Your task to perform on an android device: Find coffee shops on Maps Image 0: 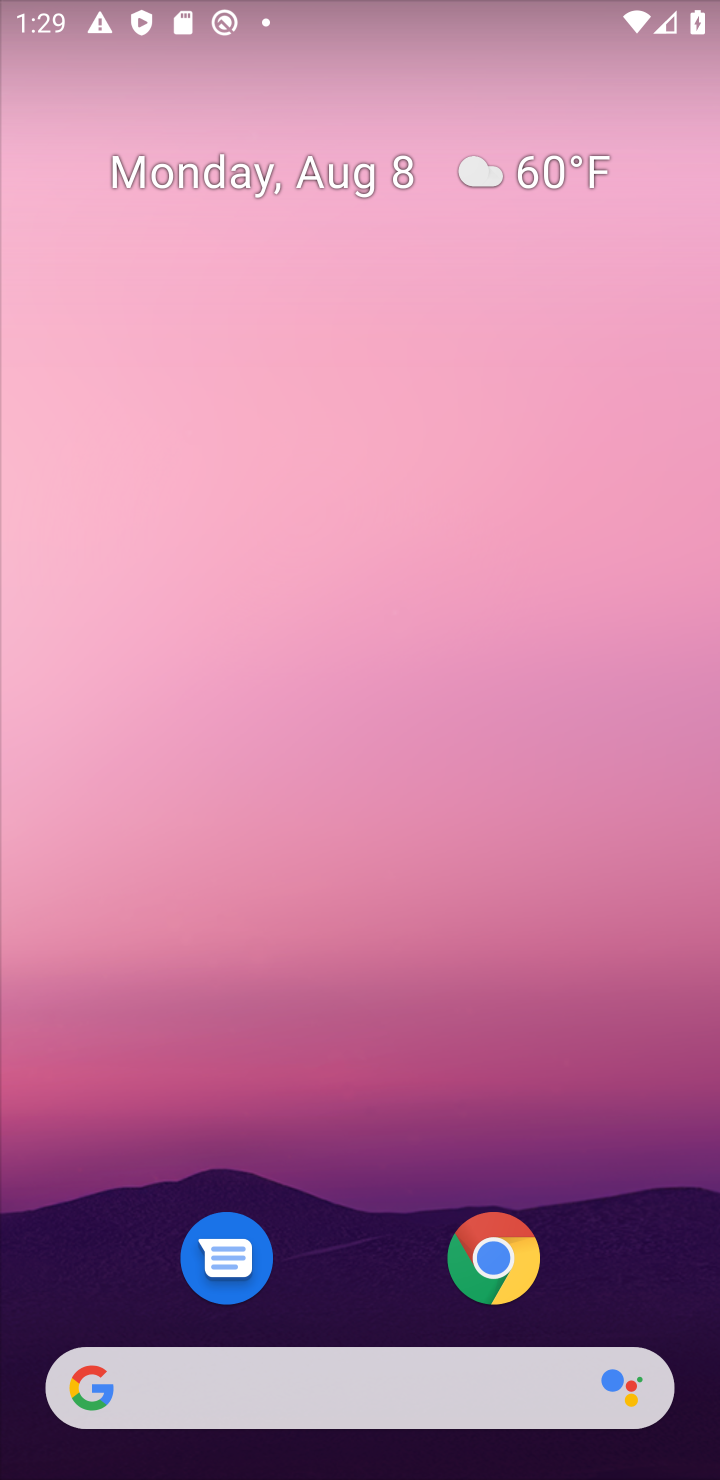
Step 0: drag from (487, 1252) to (340, 63)
Your task to perform on an android device: Find coffee shops on Maps Image 1: 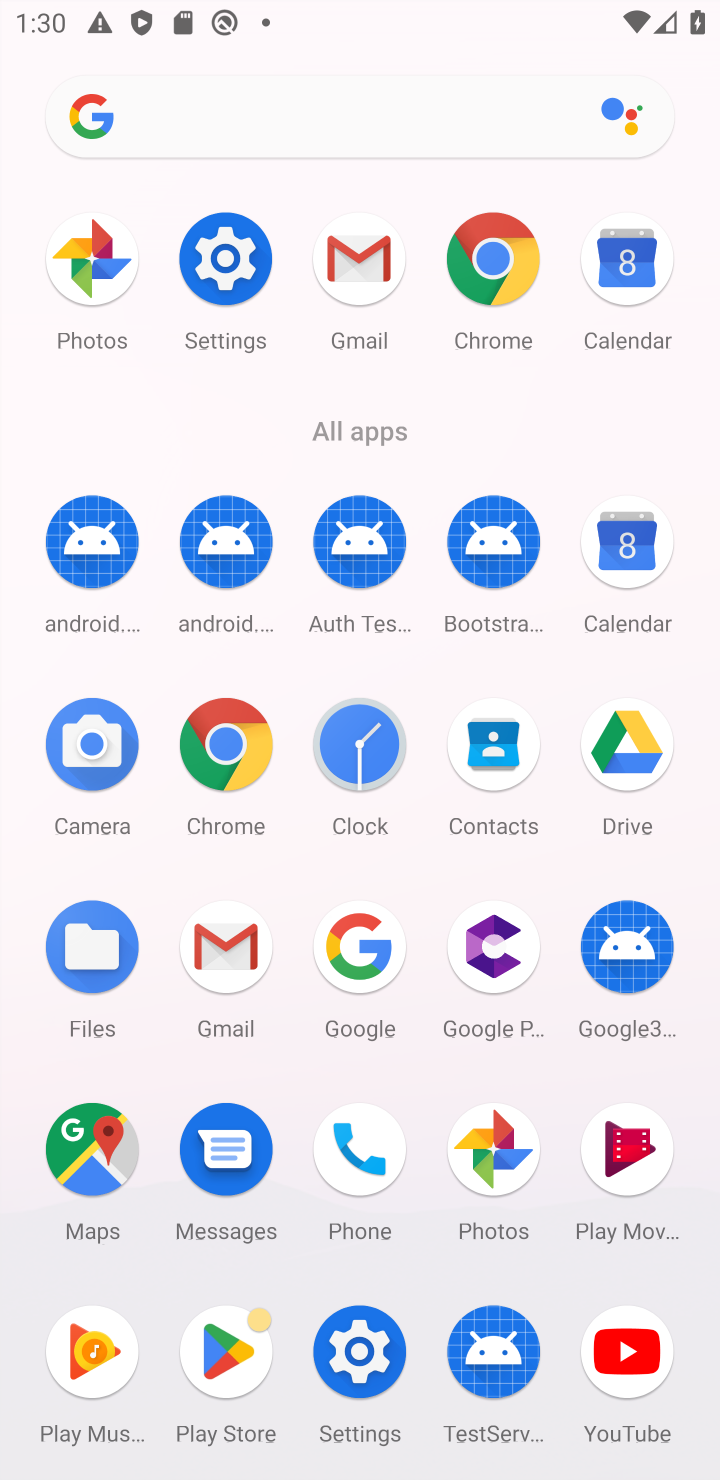
Step 1: click (98, 1173)
Your task to perform on an android device: Find coffee shops on Maps Image 2: 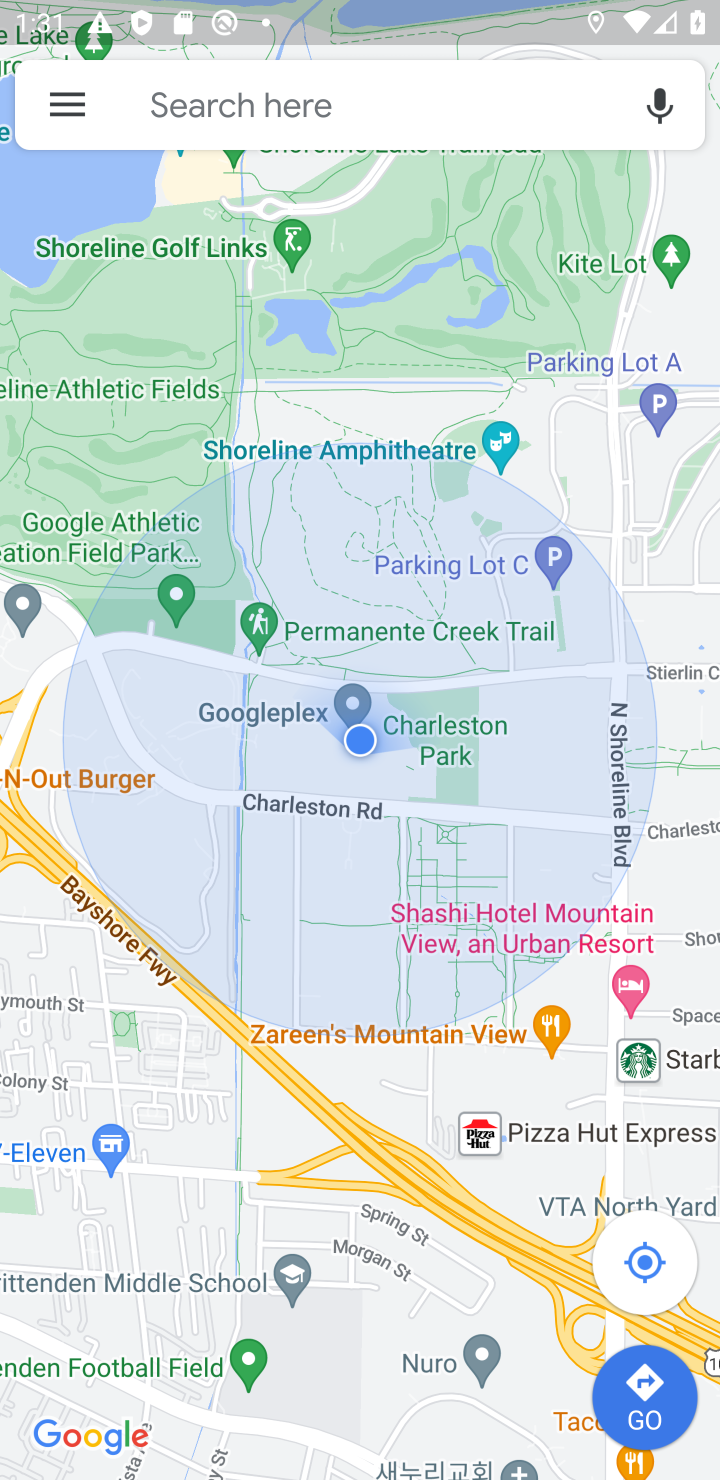
Step 2: click (447, 121)
Your task to perform on an android device: Find coffee shops on Maps Image 3: 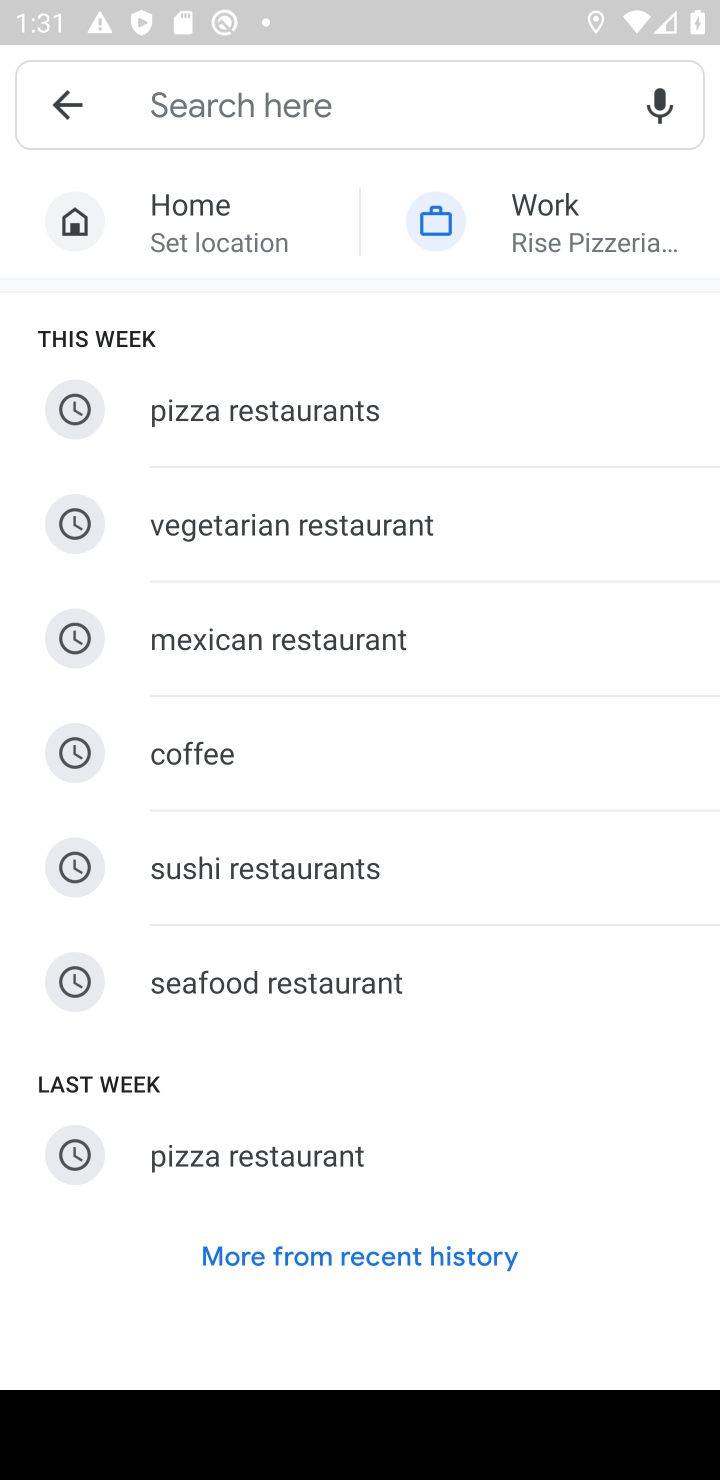
Step 3: type "coffee shops"
Your task to perform on an android device: Find coffee shops on Maps Image 4: 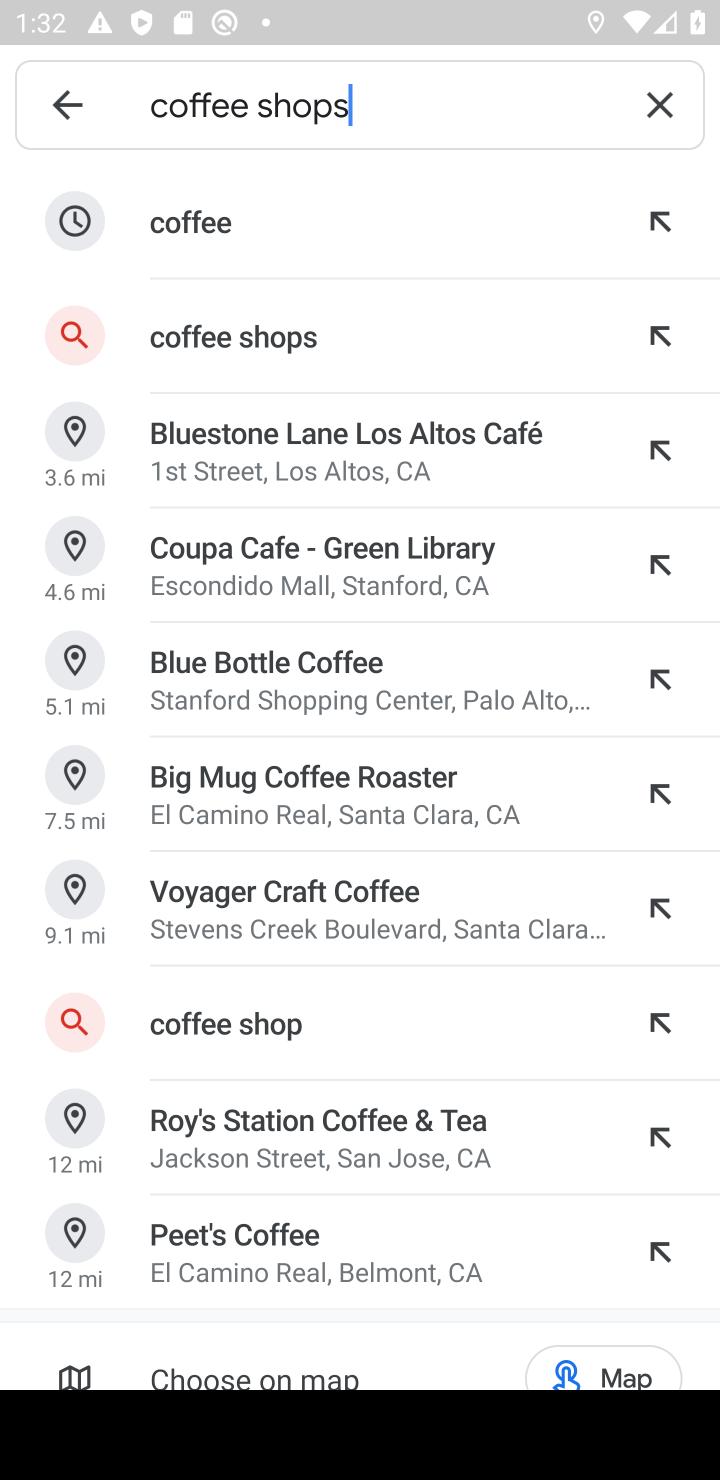
Step 4: click (323, 224)
Your task to perform on an android device: Find coffee shops on Maps Image 5: 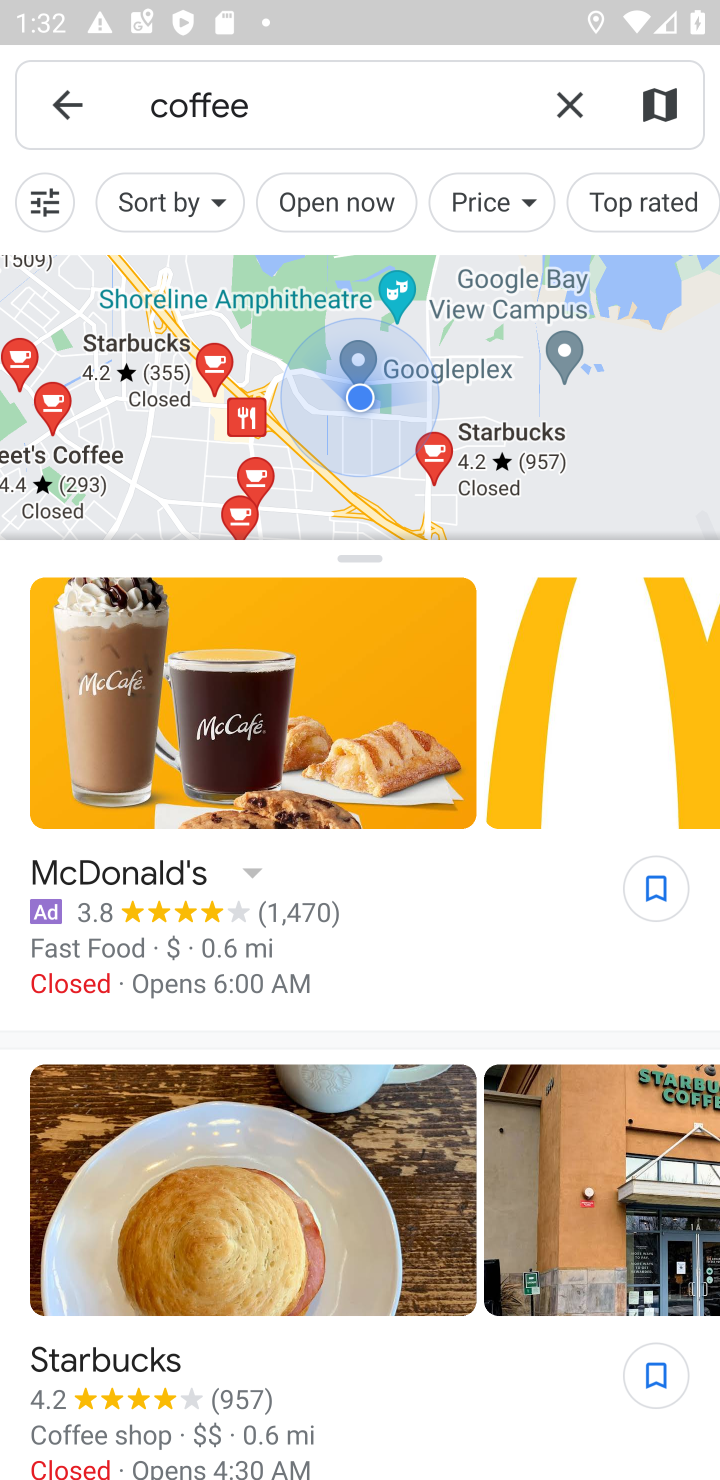
Step 5: task complete